Your task to perform on an android device: Open maps Image 0: 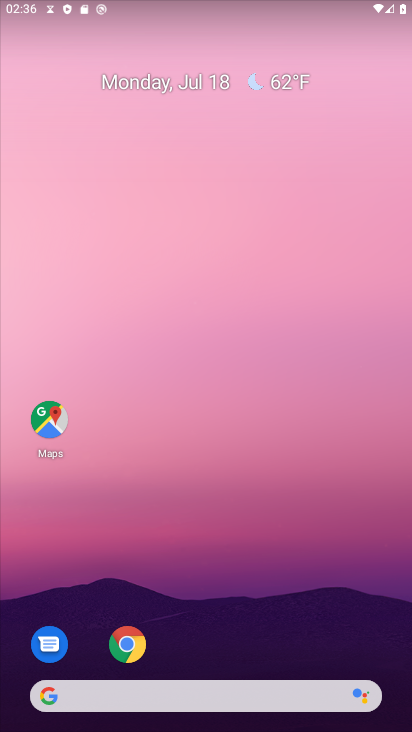
Step 0: drag from (341, 708) to (260, 43)
Your task to perform on an android device: Open maps Image 1: 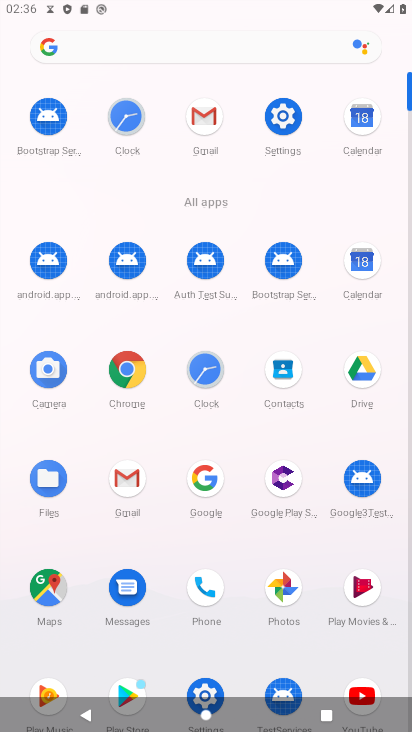
Step 1: click (48, 588)
Your task to perform on an android device: Open maps Image 2: 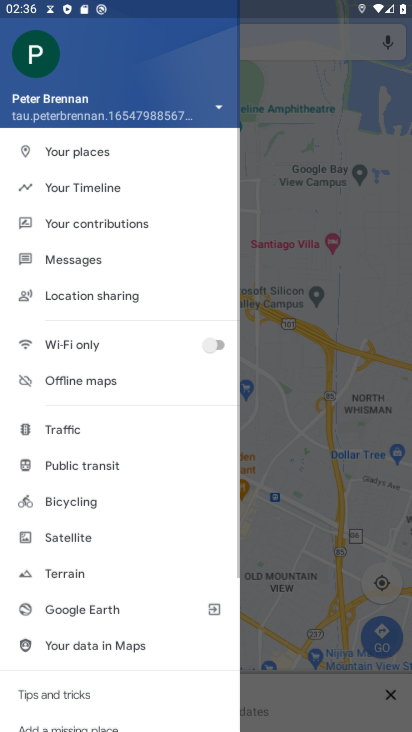
Step 2: click (303, 254)
Your task to perform on an android device: Open maps Image 3: 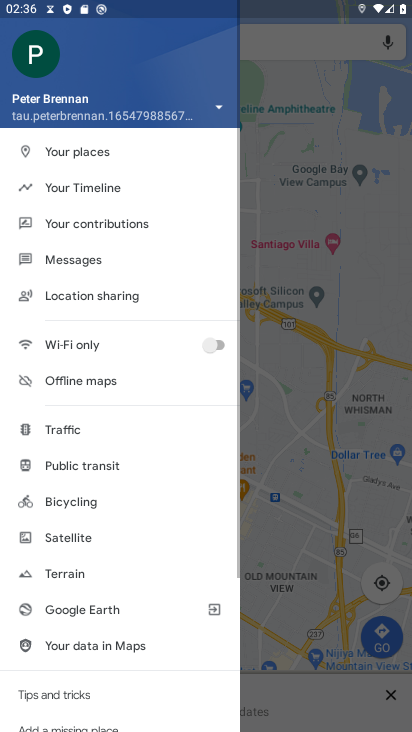
Step 3: click (308, 253)
Your task to perform on an android device: Open maps Image 4: 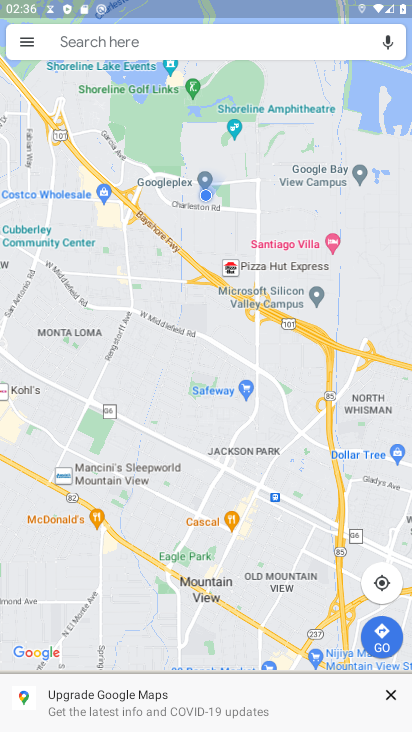
Step 4: task complete